Your task to perform on an android device: Go to display settings Image 0: 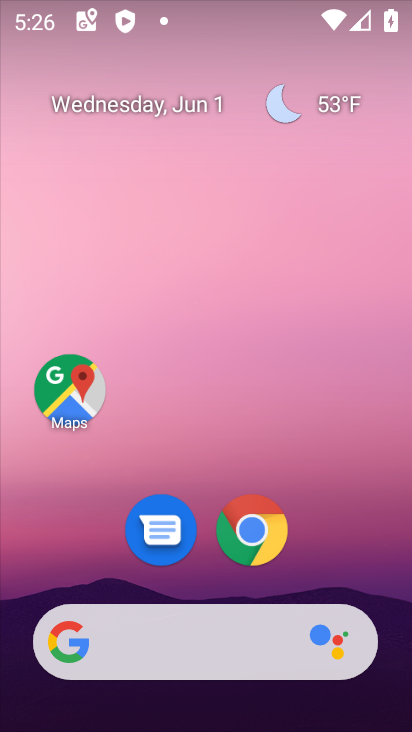
Step 0: drag from (213, 570) to (211, 45)
Your task to perform on an android device: Go to display settings Image 1: 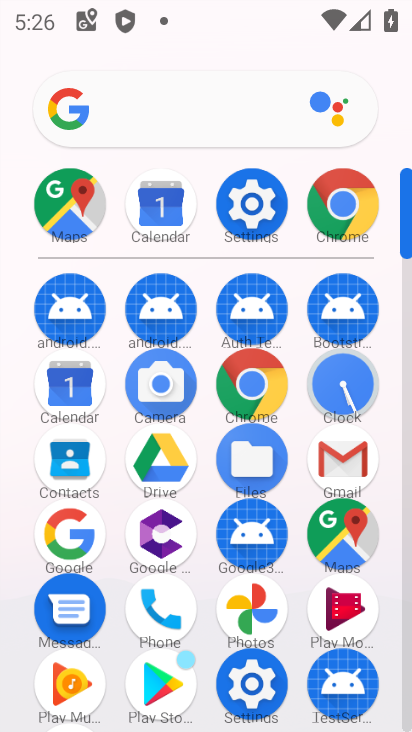
Step 1: click (244, 214)
Your task to perform on an android device: Go to display settings Image 2: 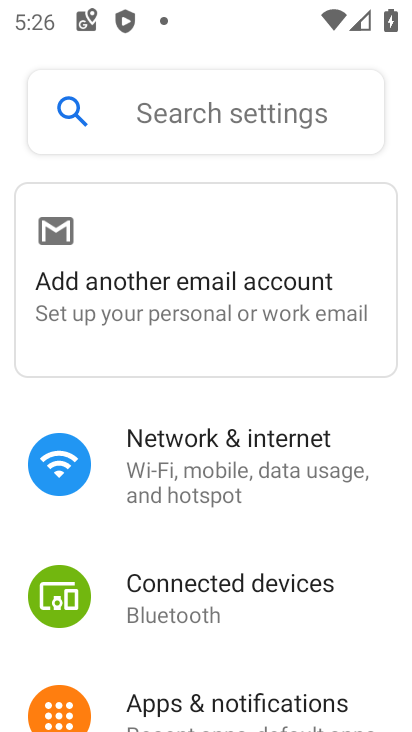
Step 2: drag from (221, 632) to (214, 330)
Your task to perform on an android device: Go to display settings Image 3: 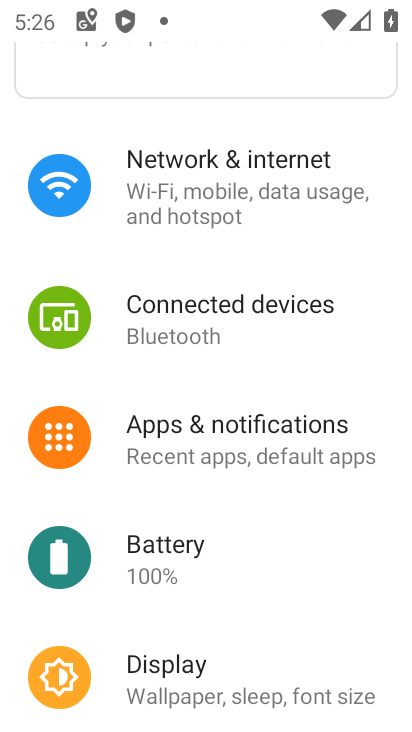
Step 3: click (168, 690)
Your task to perform on an android device: Go to display settings Image 4: 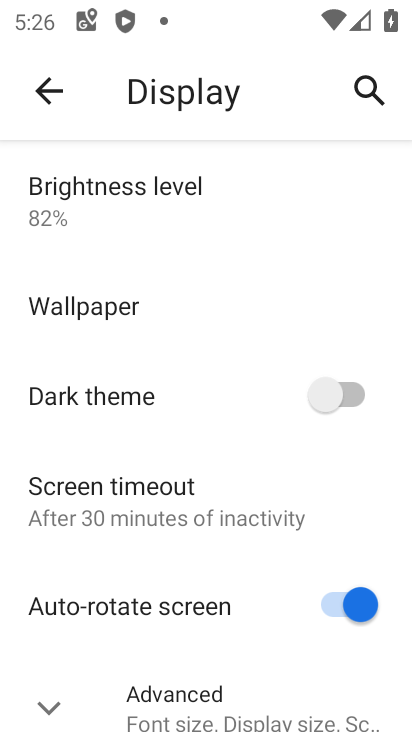
Step 4: task complete